Your task to perform on an android device: snooze an email in the gmail app Image 0: 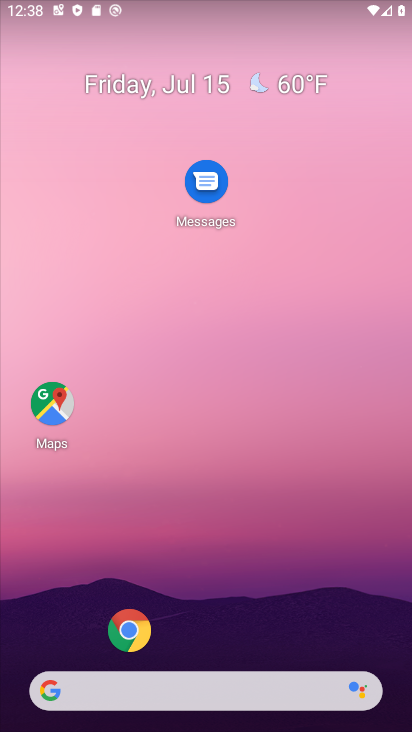
Step 0: drag from (40, 665) to (170, 142)
Your task to perform on an android device: snooze an email in the gmail app Image 1: 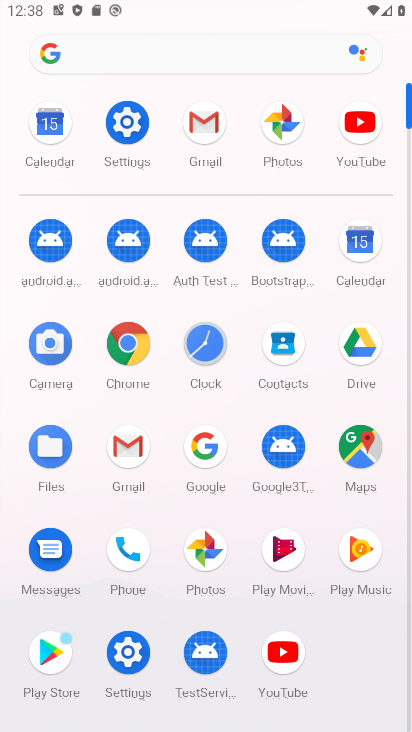
Step 1: click (204, 133)
Your task to perform on an android device: snooze an email in the gmail app Image 2: 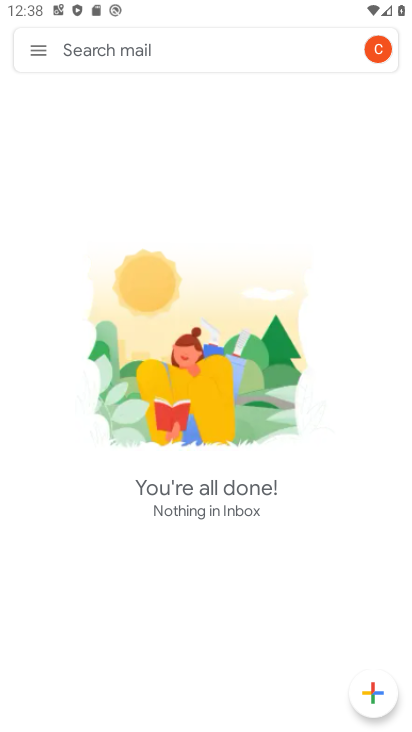
Step 2: click (39, 54)
Your task to perform on an android device: snooze an email in the gmail app Image 3: 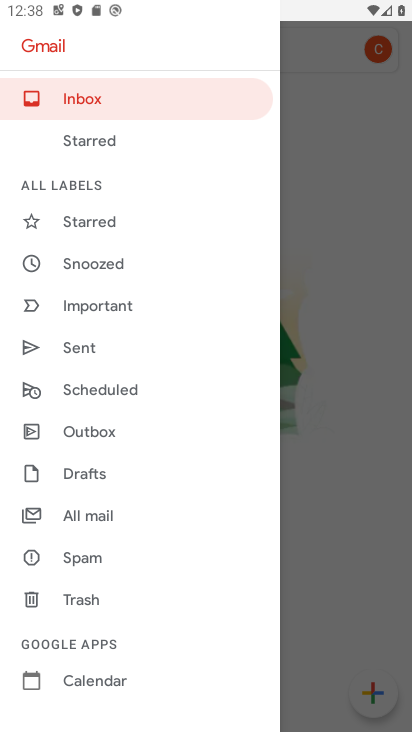
Step 3: click (72, 257)
Your task to perform on an android device: snooze an email in the gmail app Image 4: 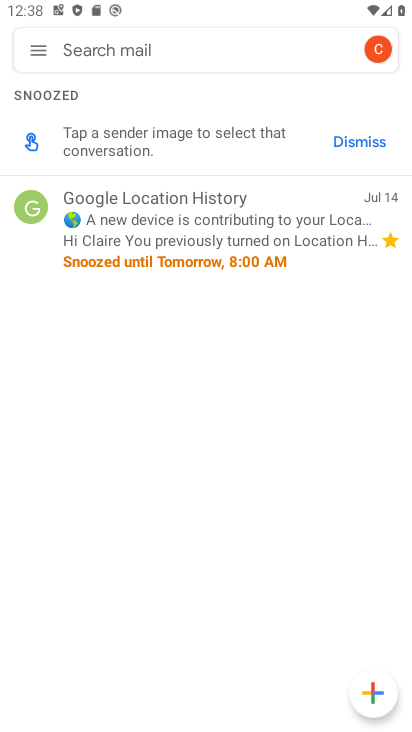
Step 4: task complete